Your task to perform on an android device: turn on the 24-hour format for clock Image 0: 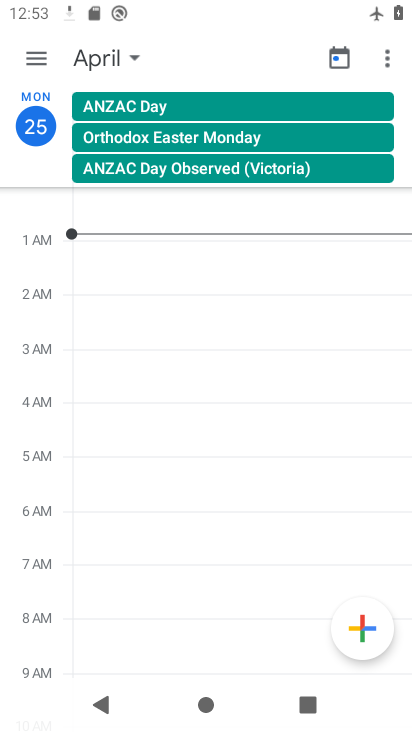
Step 0: press home button
Your task to perform on an android device: turn on the 24-hour format for clock Image 1: 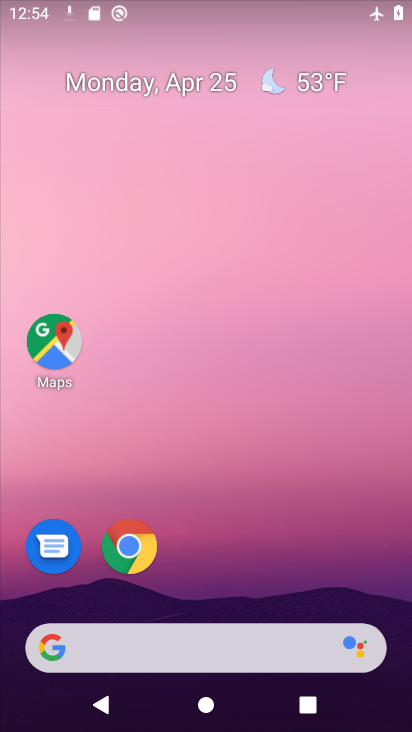
Step 1: drag from (286, 556) to (288, 113)
Your task to perform on an android device: turn on the 24-hour format for clock Image 2: 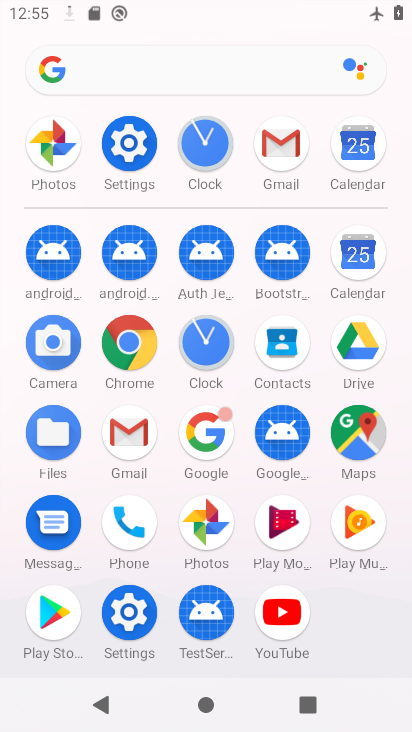
Step 2: click (199, 341)
Your task to perform on an android device: turn on the 24-hour format for clock Image 3: 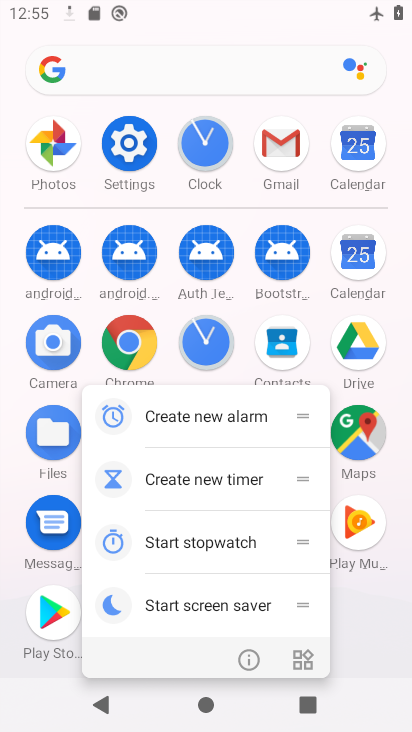
Step 3: click (199, 341)
Your task to perform on an android device: turn on the 24-hour format for clock Image 4: 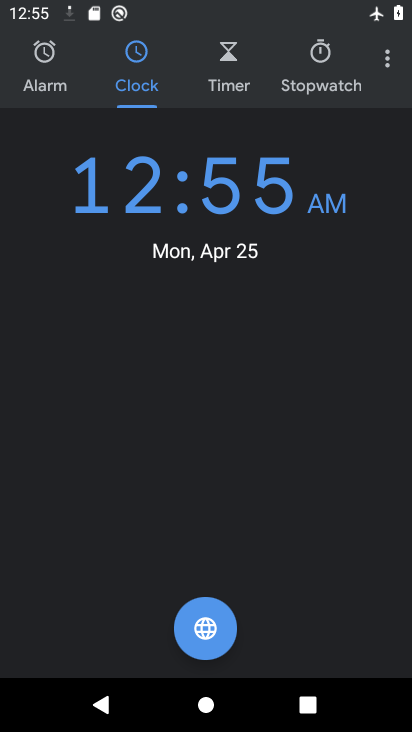
Step 4: click (387, 52)
Your task to perform on an android device: turn on the 24-hour format for clock Image 5: 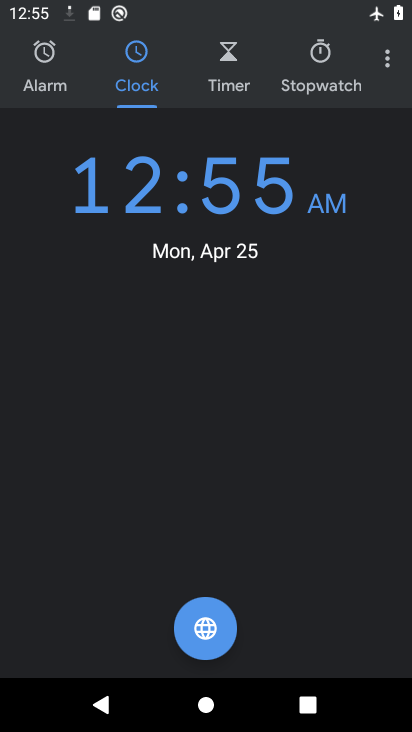
Step 5: click (385, 66)
Your task to perform on an android device: turn on the 24-hour format for clock Image 6: 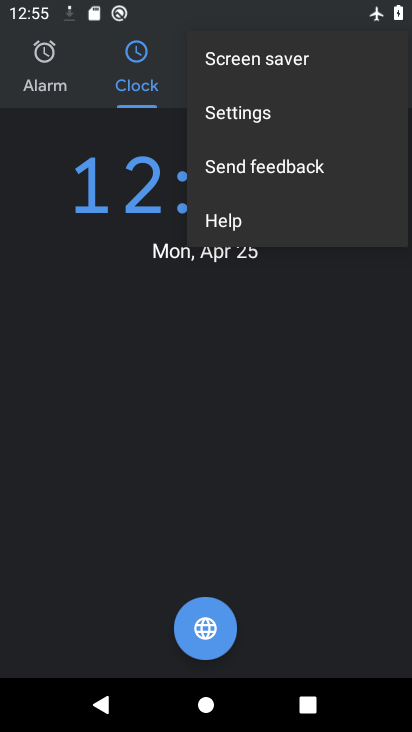
Step 6: click (253, 108)
Your task to perform on an android device: turn on the 24-hour format for clock Image 7: 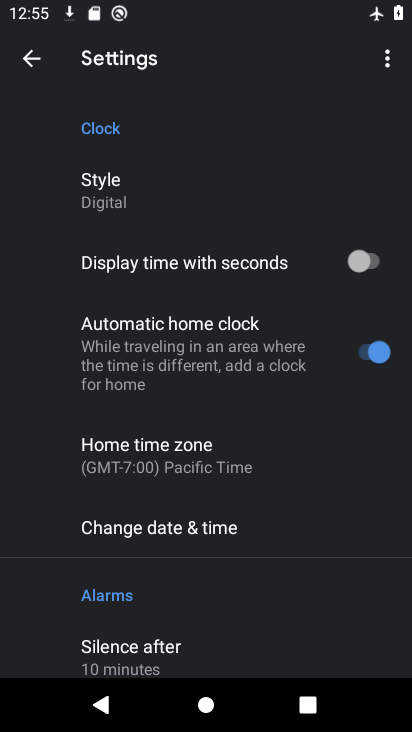
Step 7: click (189, 512)
Your task to perform on an android device: turn on the 24-hour format for clock Image 8: 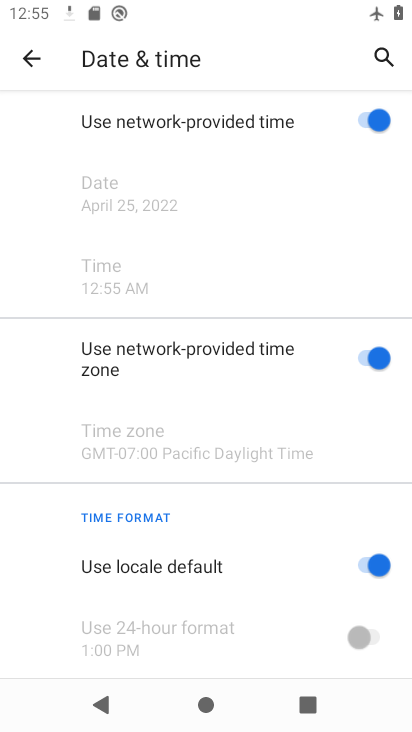
Step 8: drag from (239, 542) to (229, 4)
Your task to perform on an android device: turn on the 24-hour format for clock Image 9: 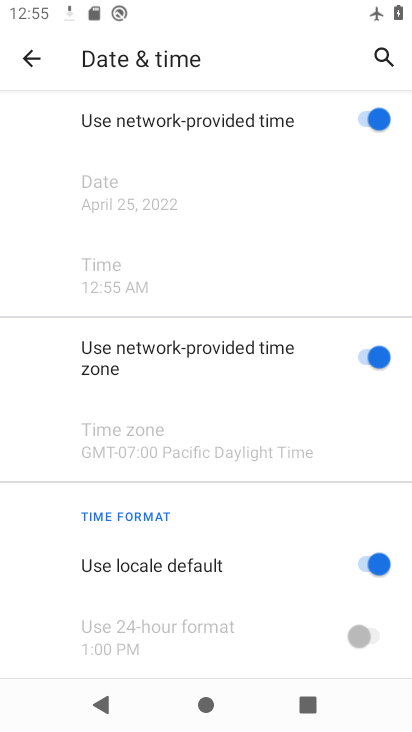
Step 9: click (357, 554)
Your task to perform on an android device: turn on the 24-hour format for clock Image 10: 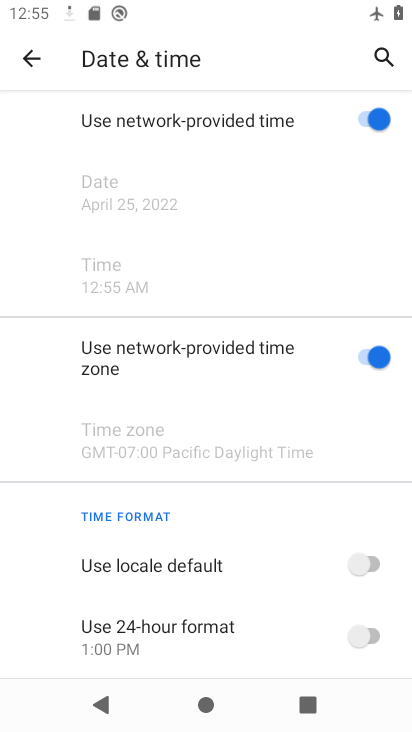
Step 10: click (355, 637)
Your task to perform on an android device: turn on the 24-hour format for clock Image 11: 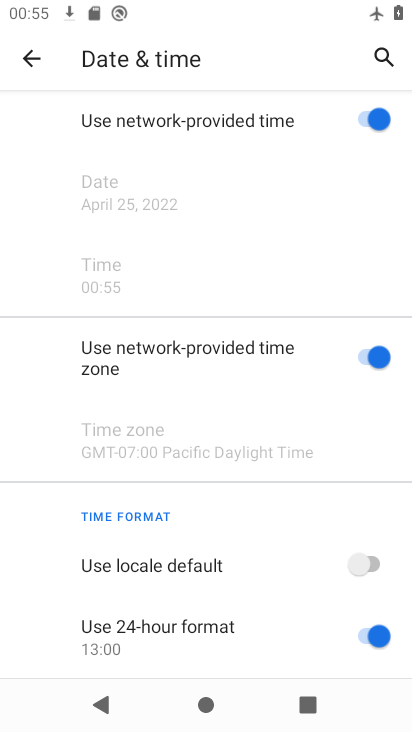
Step 11: task complete